Your task to perform on an android device: Open calendar and show me the first week of next month Image 0: 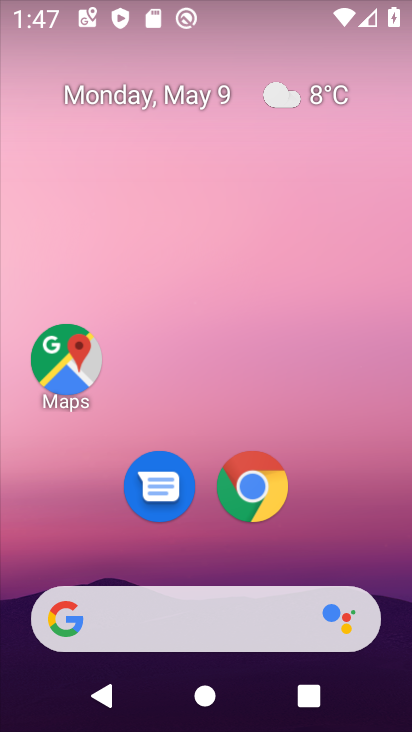
Step 0: task complete